Your task to perform on an android device: Go to internet settings Image 0: 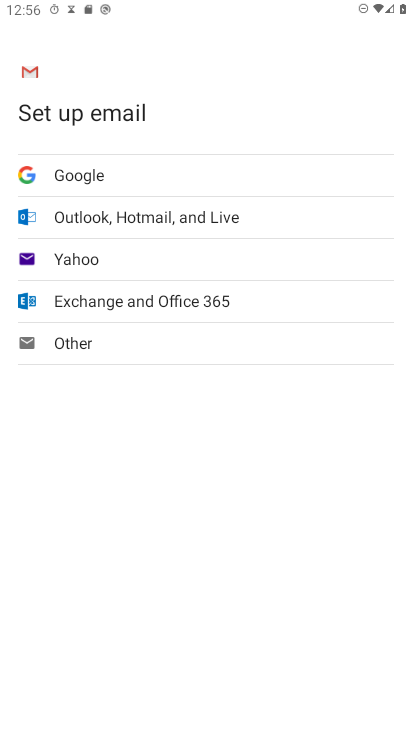
Step 0: press home button
Your task to perform on an android device: Go to internet settings Image 1: 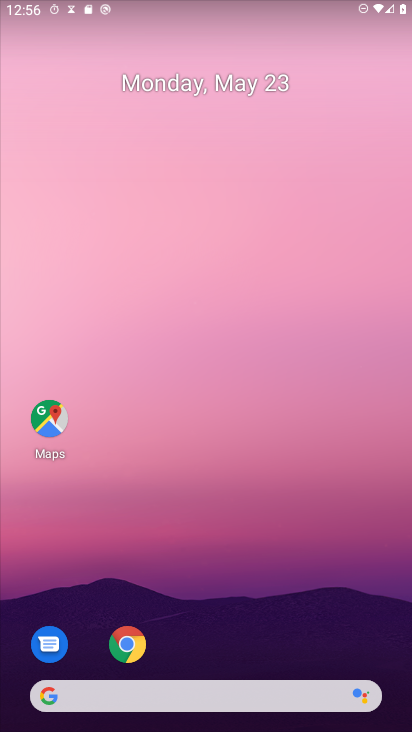
Step 1: drag from (254, 631) to (330, 52)
Your task to perform on an android device: Go to internet settings Image 2: 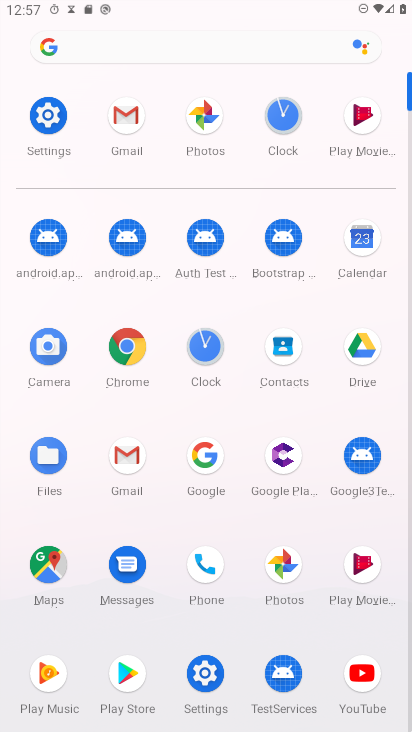
Step 2: click (47, 118)
Your task to perform on an android device: Go to internet settings Image 3: 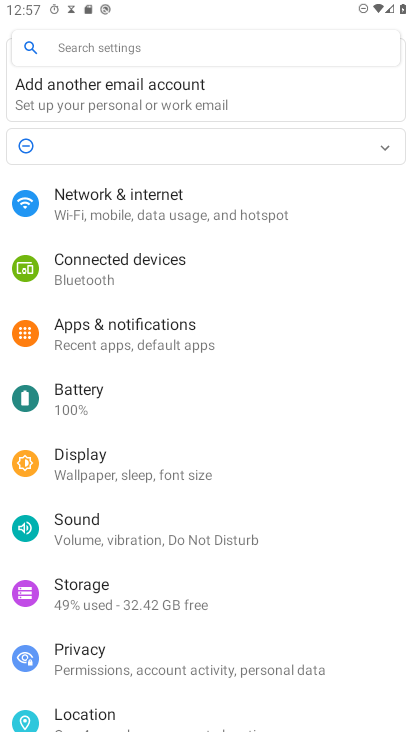
Step 3: click (141, 210)
Your task to perform on an android device: Go to internet settings Image 4: 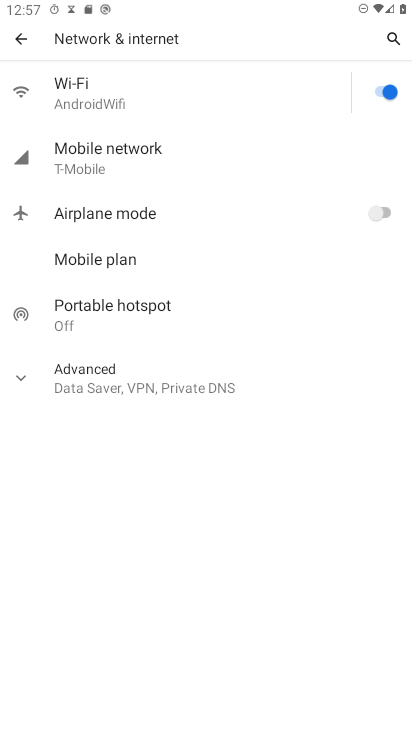
Step 4: task complete